Your task to perform on an android device: Empty the shopping cart on amazon. Add "logitech g pro" to the cart on amazon Image 0: 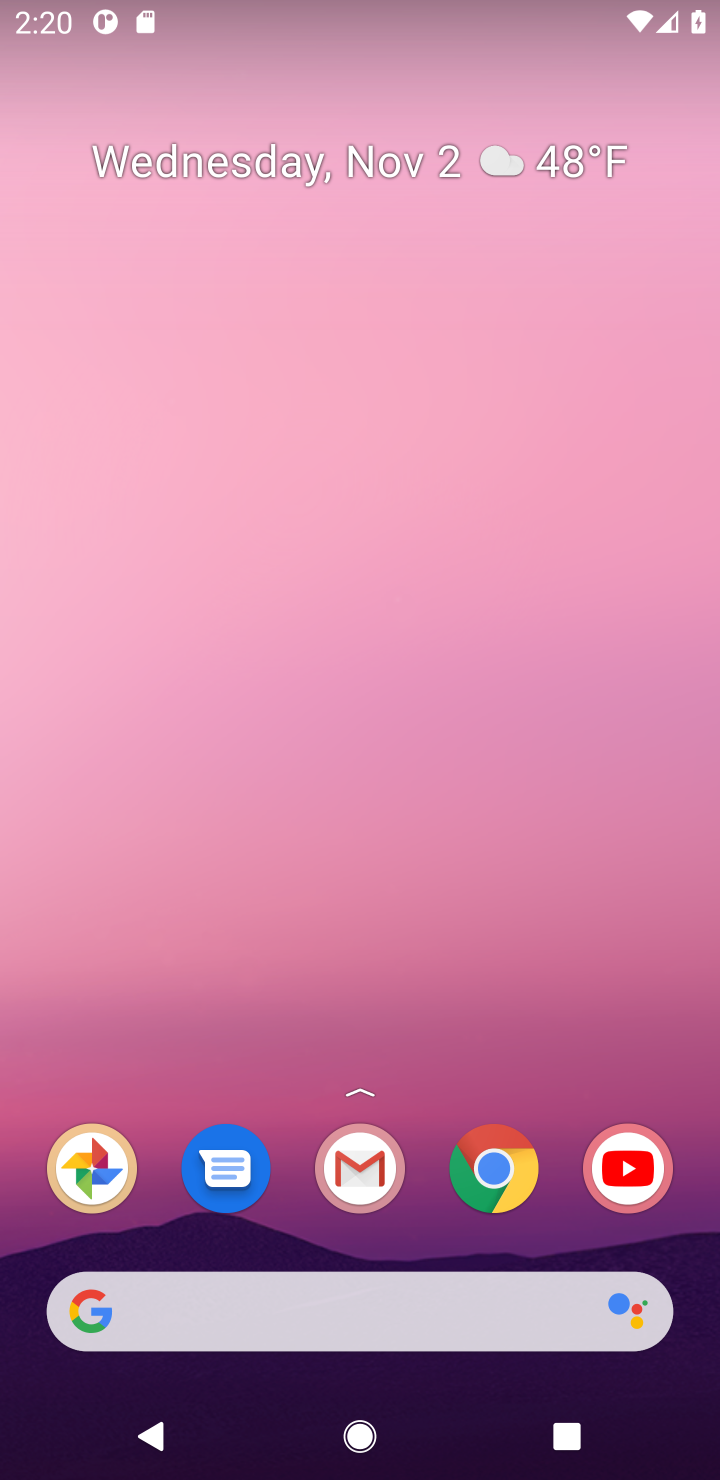
Step 0: click (340, 1313)
Your task to perform on an android device: Empty the shopping cart on amazon. Add "logitech g pro" to the cart on amazon Image 1: 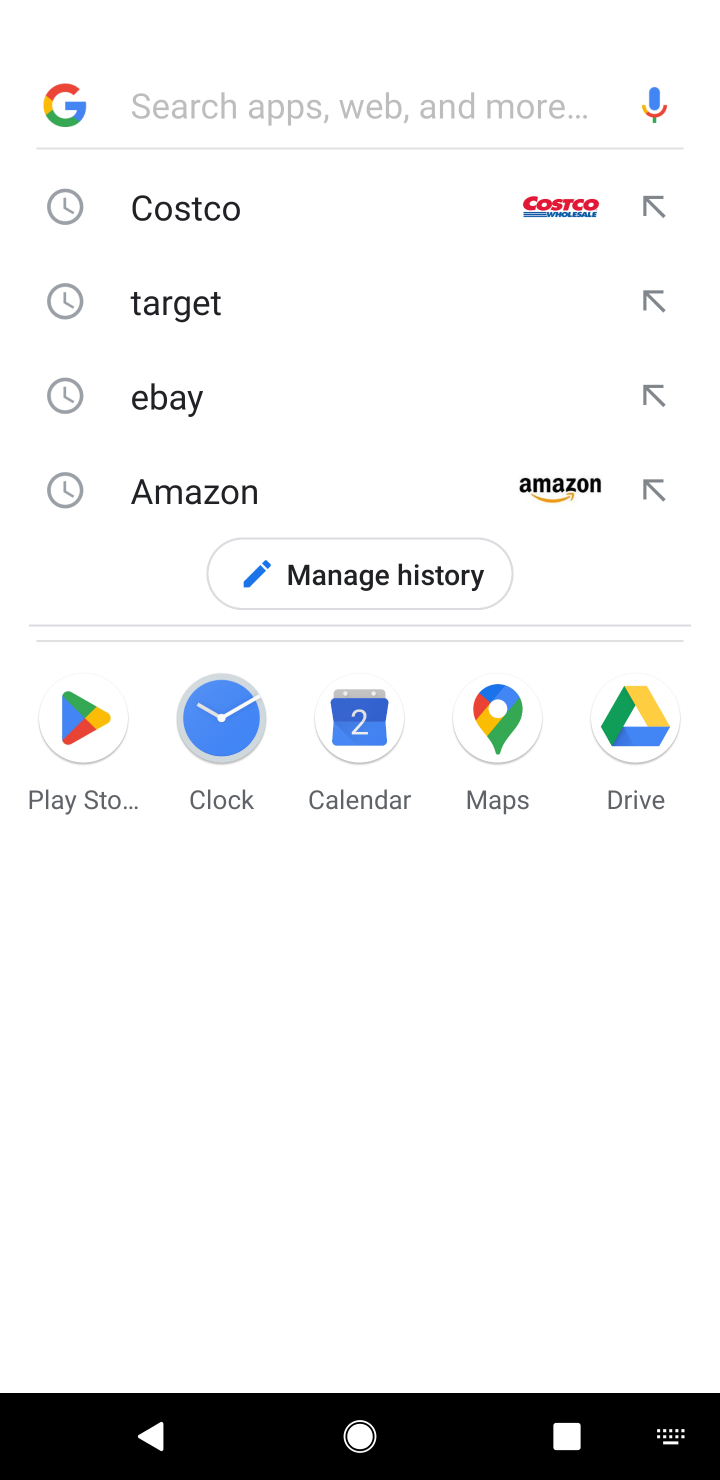
Step 1: click (376, 502)
Your task to perform on an android device: Empty the shopping cart on amazon. Add "logitech g pro" to the cart on amazon Image 2: 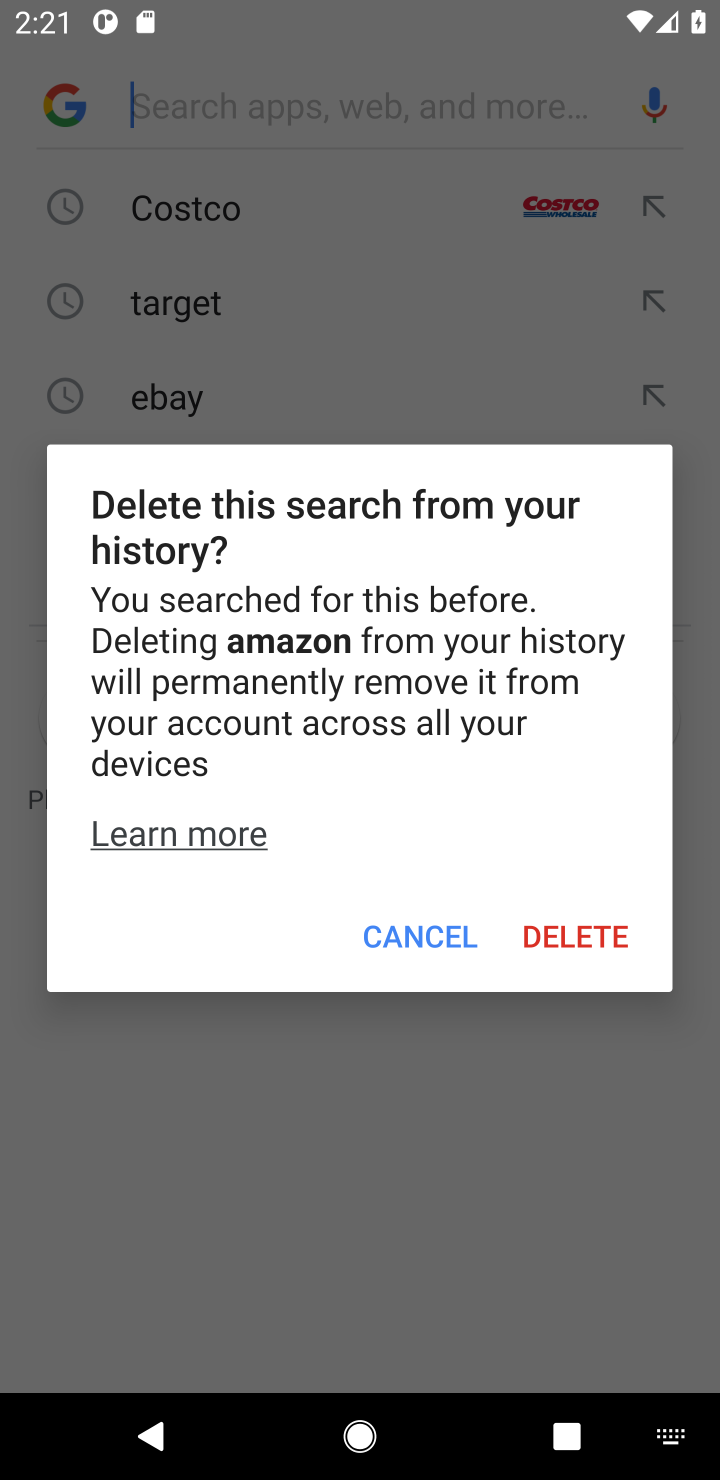
Step 2: click (374, 930)
Your task to perform on an android device: Empty the shopping cart on amazon. Add "logitech g pro" to the cart on amazon Image 3: 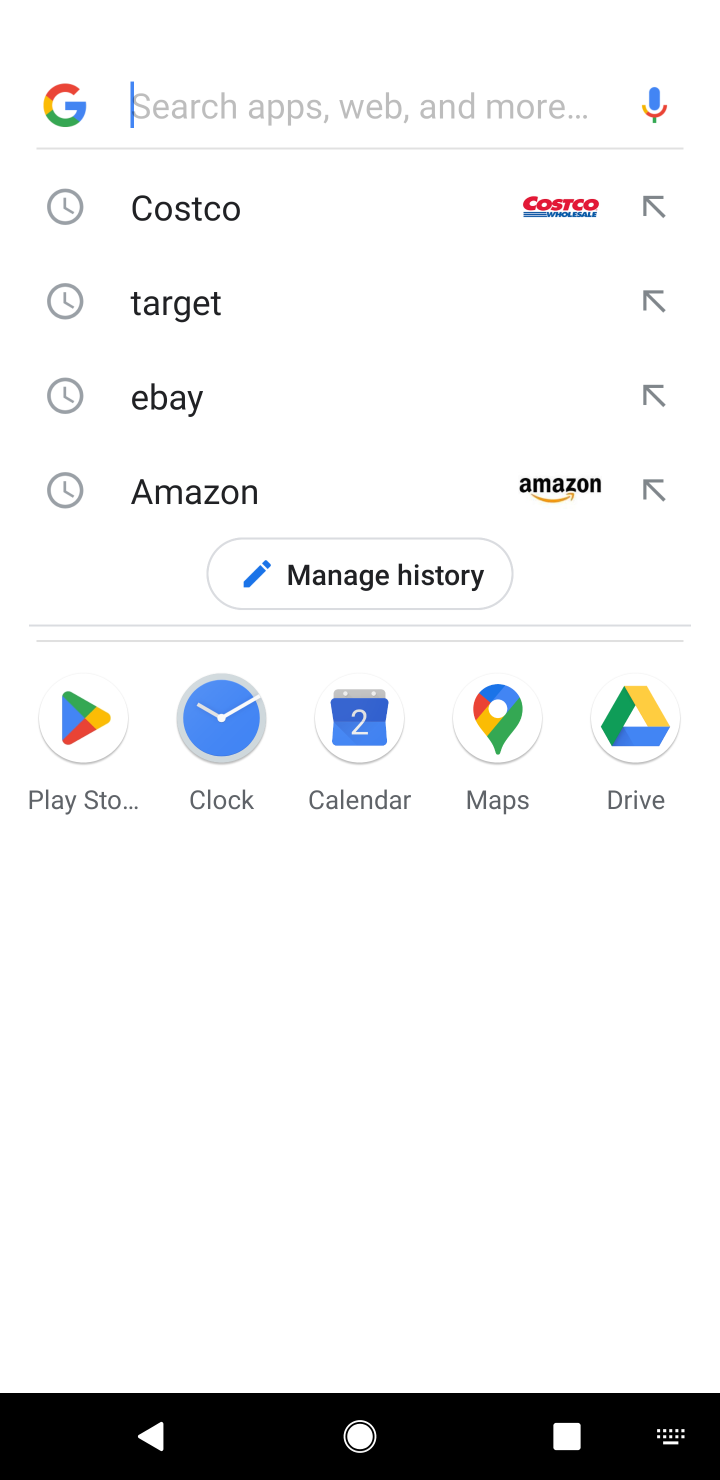
Step 3: click (226, 480)
Your task to perform on an android device: Empty the shopping cart on amazon. Add "logitech g pro" to the cart on amazon Image 4: 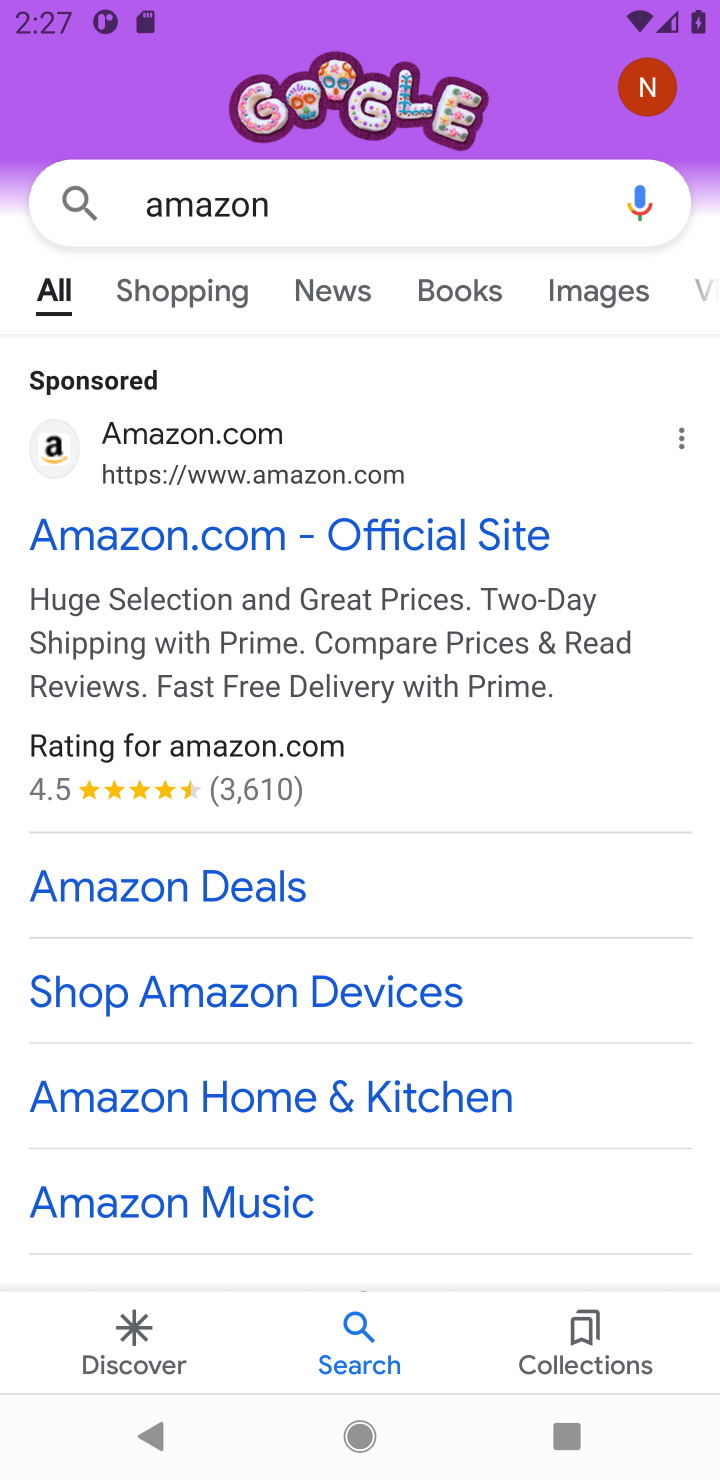
Step 4: click (214, 462)
Your task to perform on an android device: Empty the shopping cart on amazon. Add "logitech g pro" to the cart on amazon Image 5: 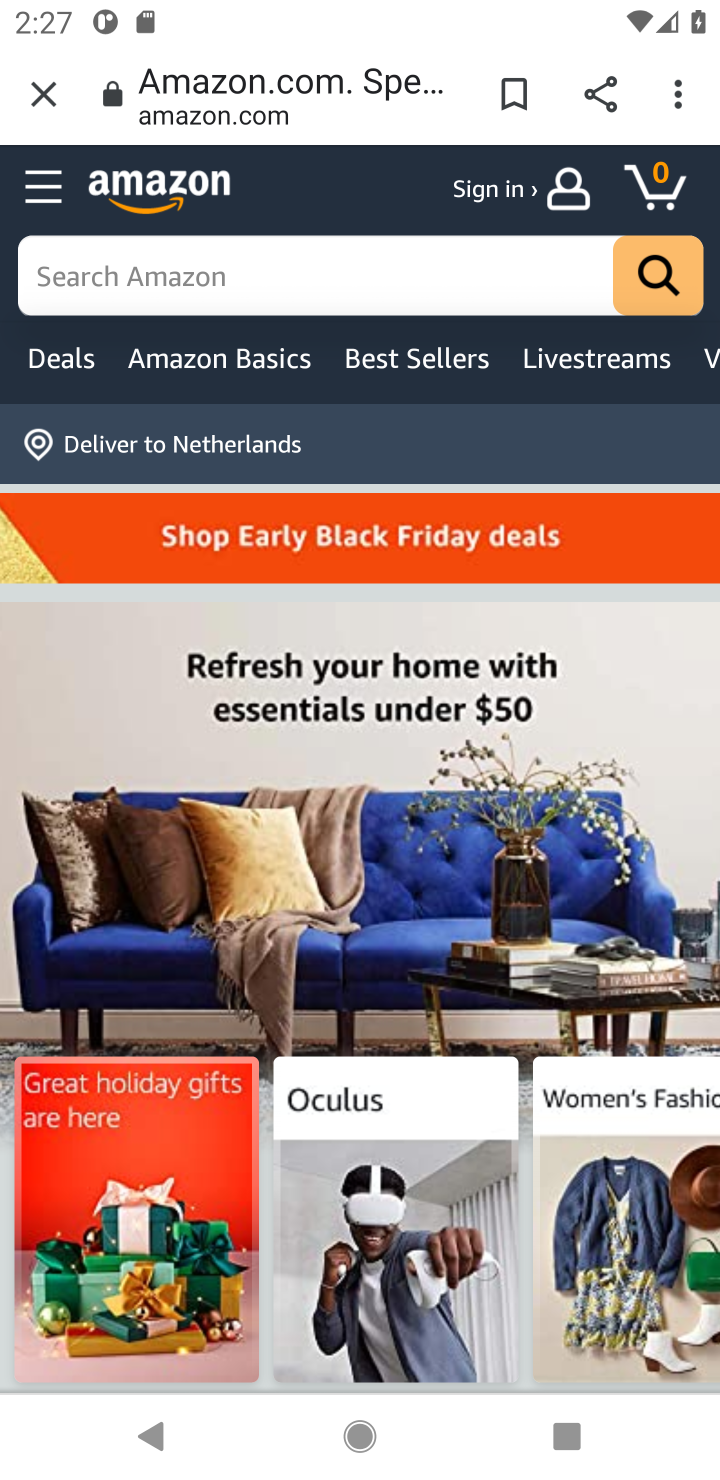
Step 5: click (642, 181)
Your task to perform on an android device: Empty the shopping cart on amazon. Add "logitech g pro" to the cart on amazon Image 6: 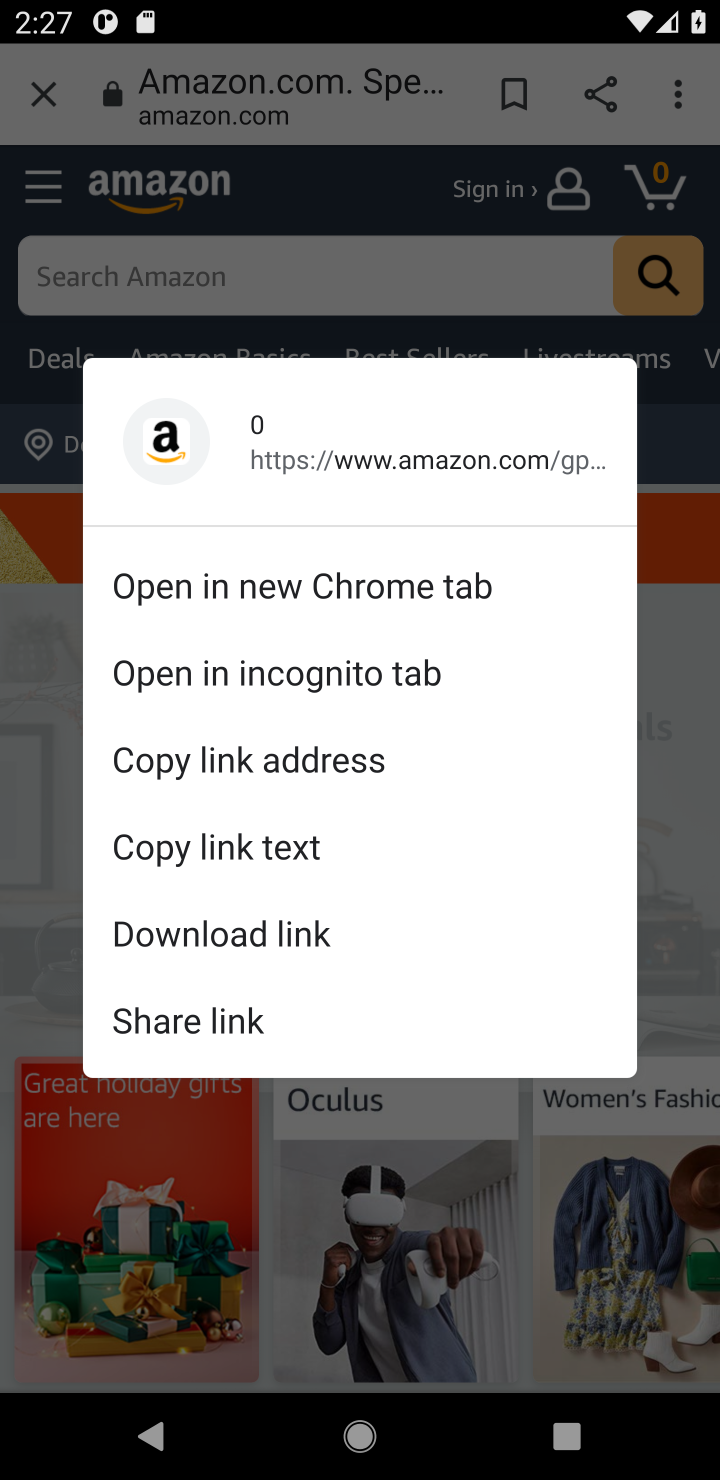
Step 6: task complete